Your task to perform on an android device: turn notification dots on Image 0: 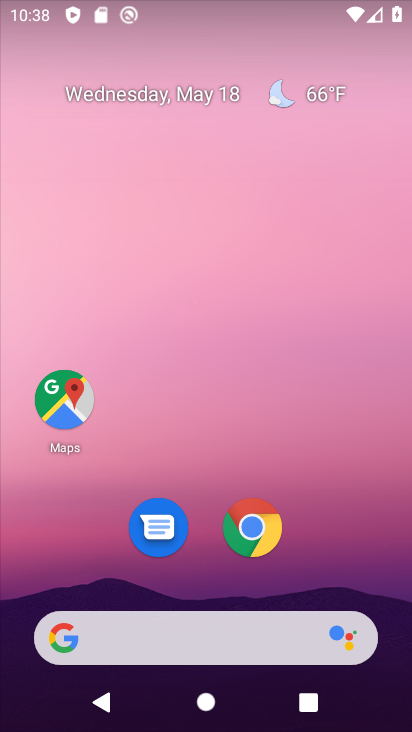
Step 0: drag from (344, 582) to (268, 143)
Your task to perform on an android device: turn notification dots on Image 1: 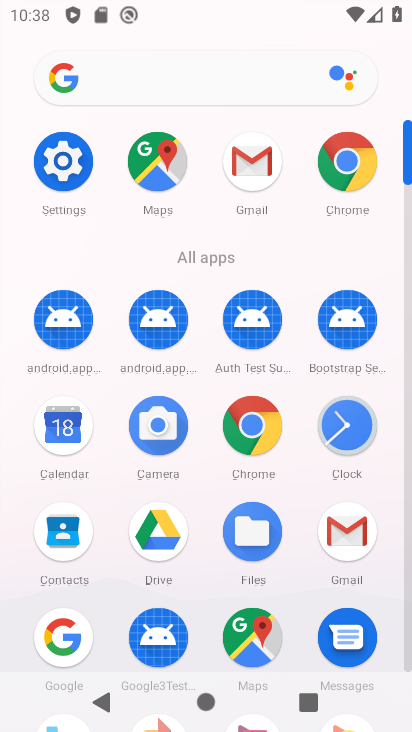
Step 1: click (66, 165)
Your task to perform on an android device: turn notification dots on Image 2: 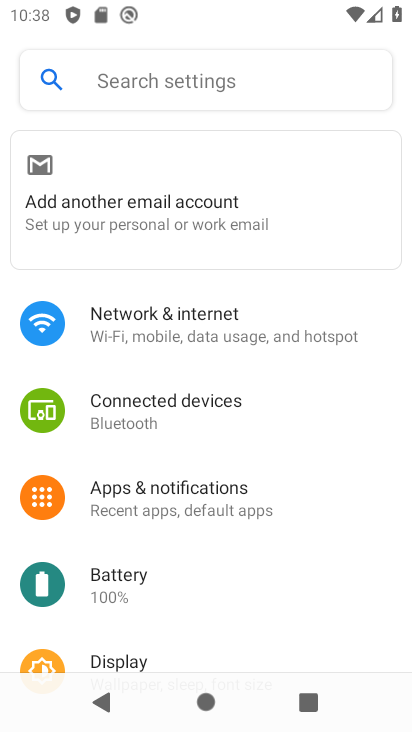
Step 2: click (134, 513)
Your task to perform on an android device: turn notification dots on Image 3: 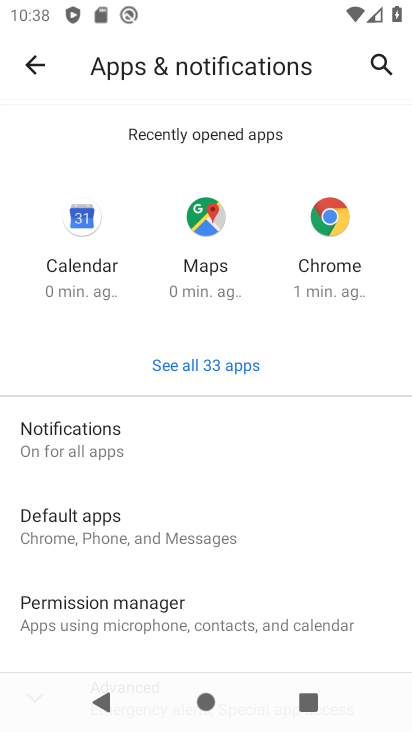
Step 3: click (215, 453)
Your task to perform on an android device: turn notification dots on Image 4: 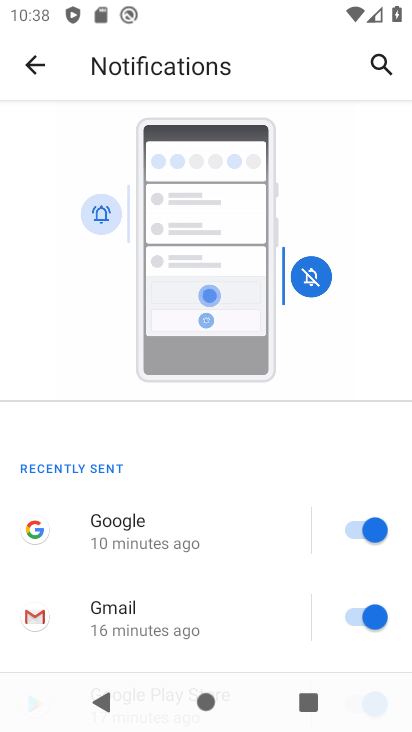
Step 4: drag from (234, 588) to (219, 75)
Your task to perform on an android device: turn notification dots on Image 5: 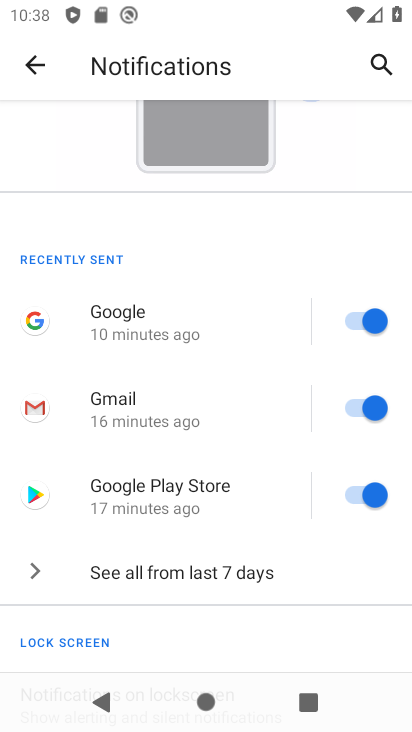
Step 5: drag from (253, 619) to (187, 147)
Your task to perform on an android device: turn notification dots on Image 6: 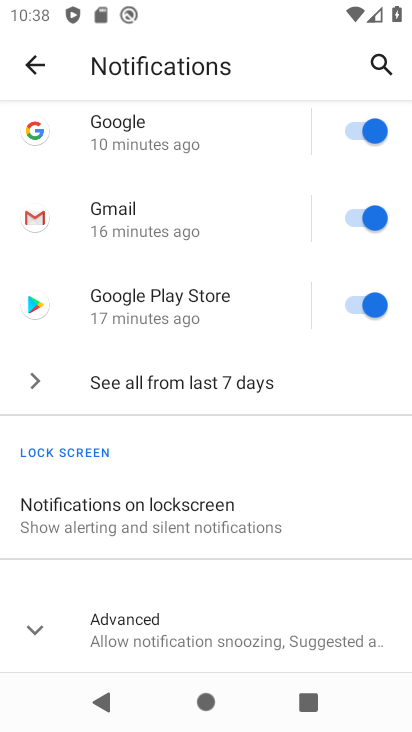
Step 6: click (182, 641)
Your task to perform on an android device: turn notification dots on Image 7: 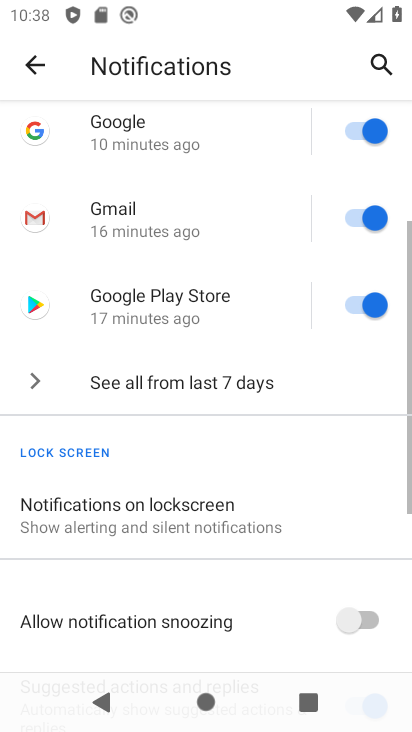
Step 7: task complete